Your task to perform on an android device: Go to CNN.com Image 0: 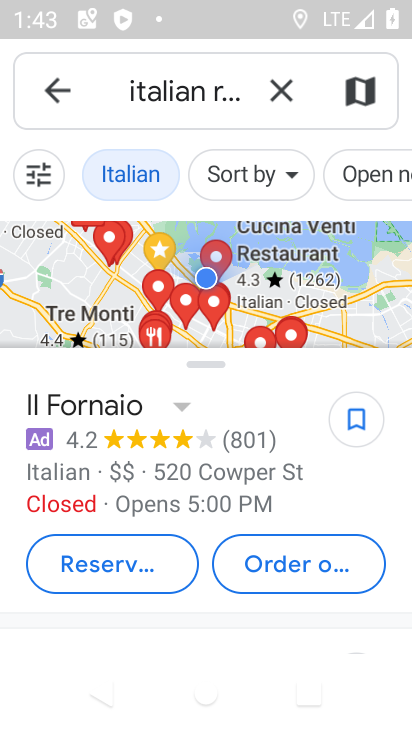
Step 0: press home button
Your task to perform on an android device: Go to CNN.com Image 1: 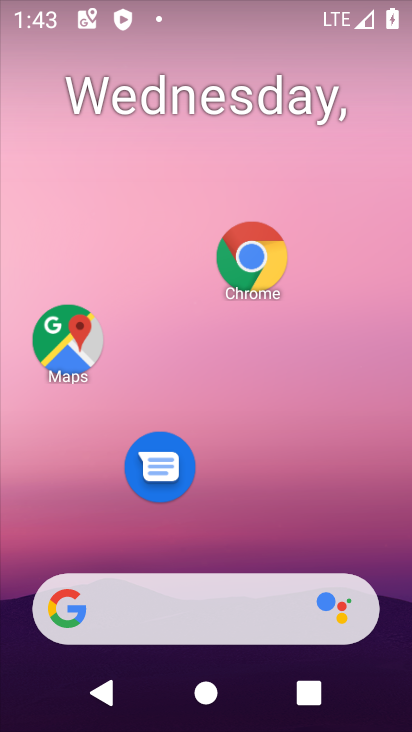
Step 1: drag from (327, 510) to (280, 91)
Your task to perform on an android device: Go to CNN.com Image 2: 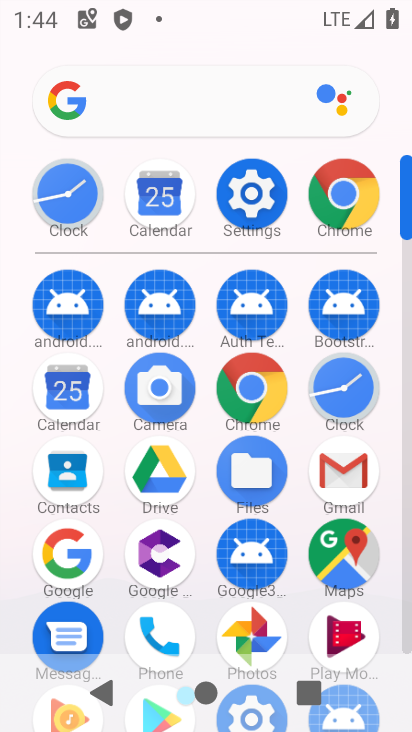
Step 2: click (254, 393)
Your task to perform on an android device: Go to CNN.com Image 3: 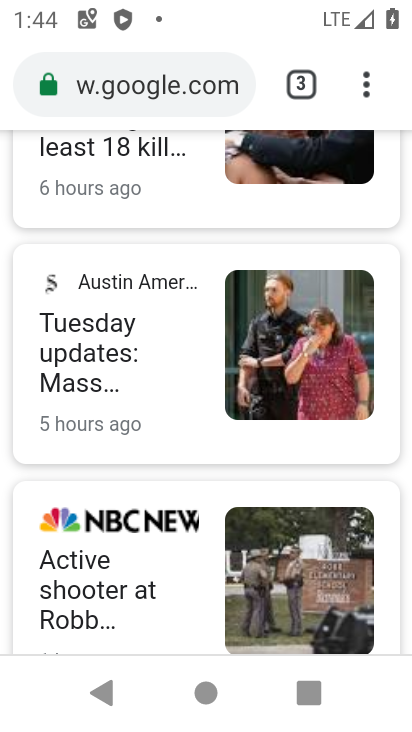
Step 3: click (151, 78)
Your task to perform on an android device: Go to CNN.com Image 4: 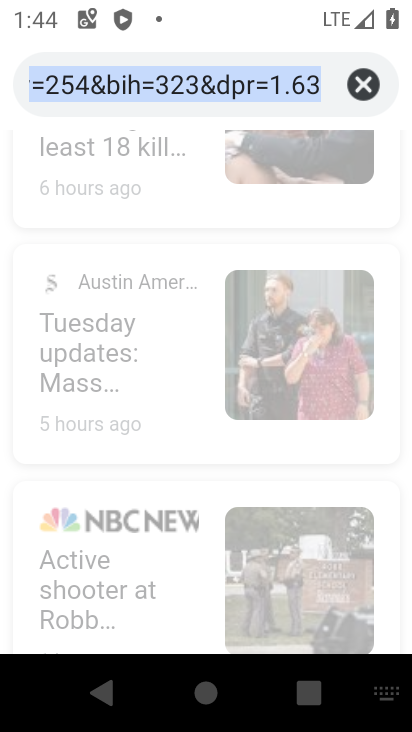
Step 4: click (366, 89)
Your task to perform on an android device: Go to CNN.com Image 5: 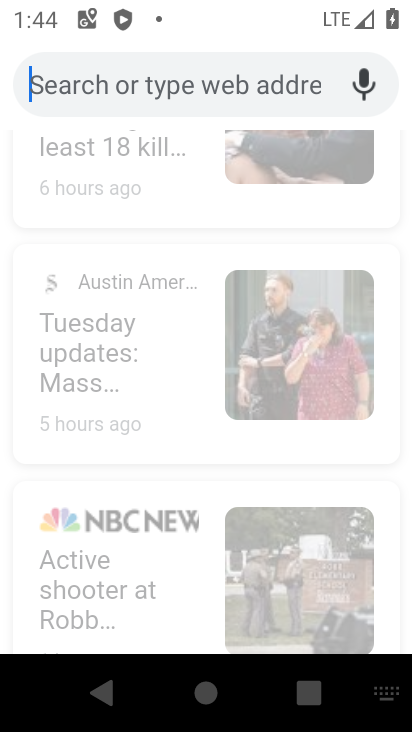
Step 5: type "CNN.com"
Your task to perform on an android device: Go to CNN.com Image 6: 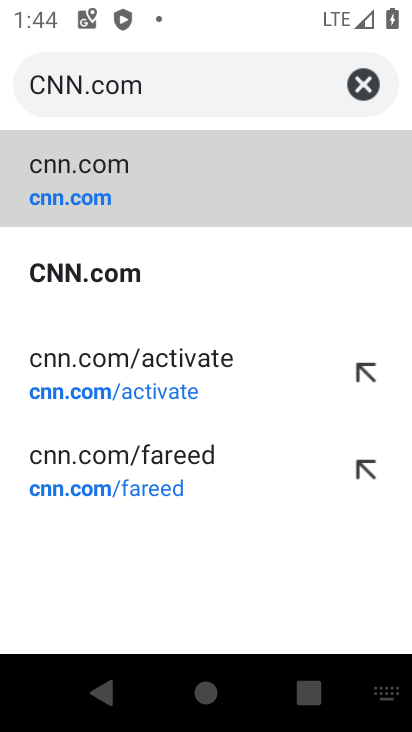
Step 6: click (74, 199)
Your task to perform on an android device: Go to CNN.com Image 7: 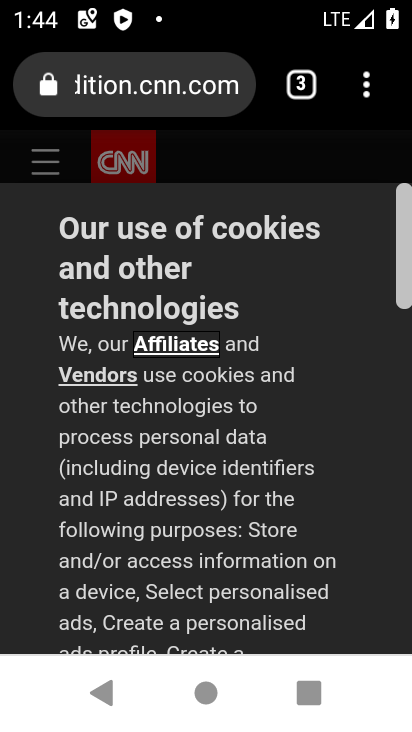
Step 7: task complete